Your task to perform on an android device: Open Youtube and go to the subscriptions tab Image 0: 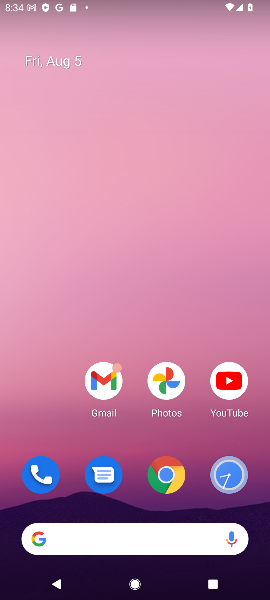
Step 0: click (223, 379)
Your task to perform on an android device: Open Youtube and go to the subscriptions tab Image 1: 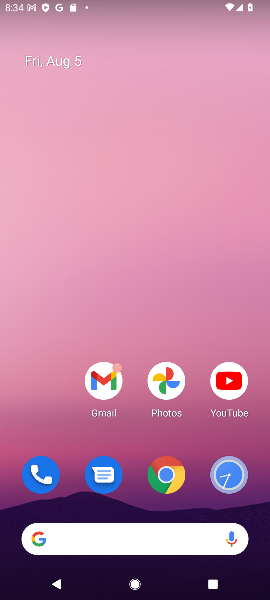
Step 1: click (223, 379)
Your task to perform on an android device: Open Youtube and go to the subscriptions tab Image 2: 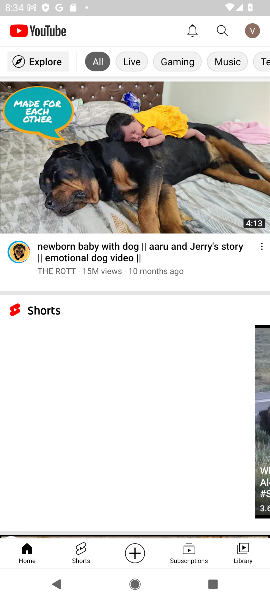
Step 2: click (187, 557)
Your task to perform on an android device: Open Youtube and go to the subscriptions tab Image 3: 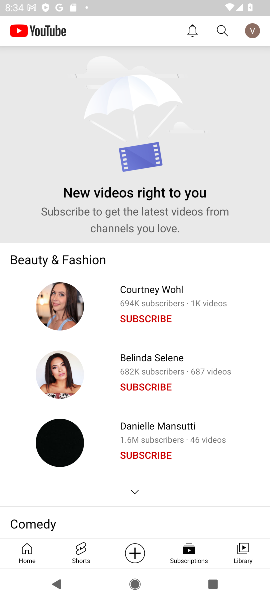
Step 3: task complete